Your task to perform on an android device: When is my next meeting? Image 0: 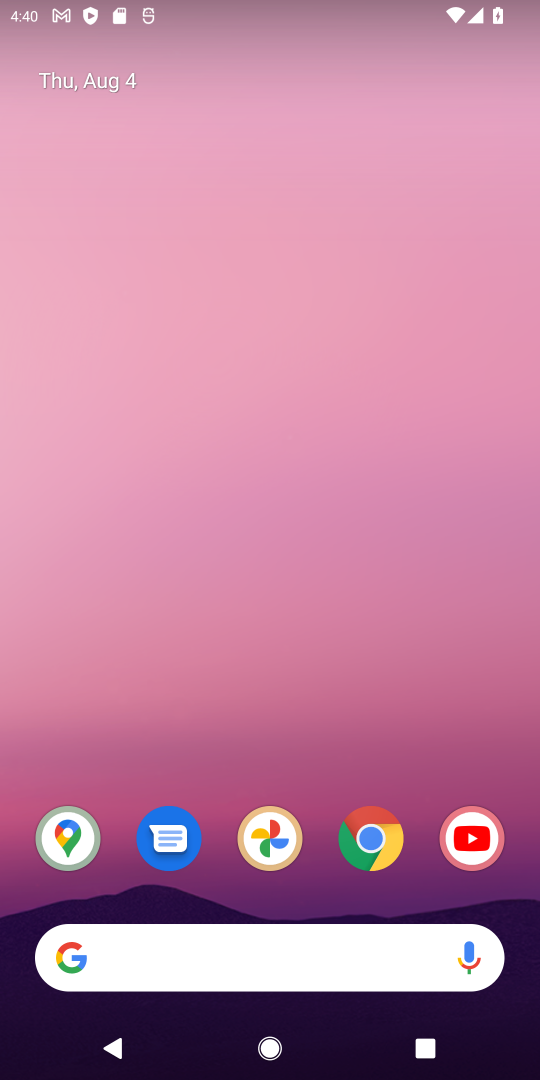
Step 0: drag from (286, 979) to (318, 194)
Your task to perform on an android device: When is my next meeting? Image 1: 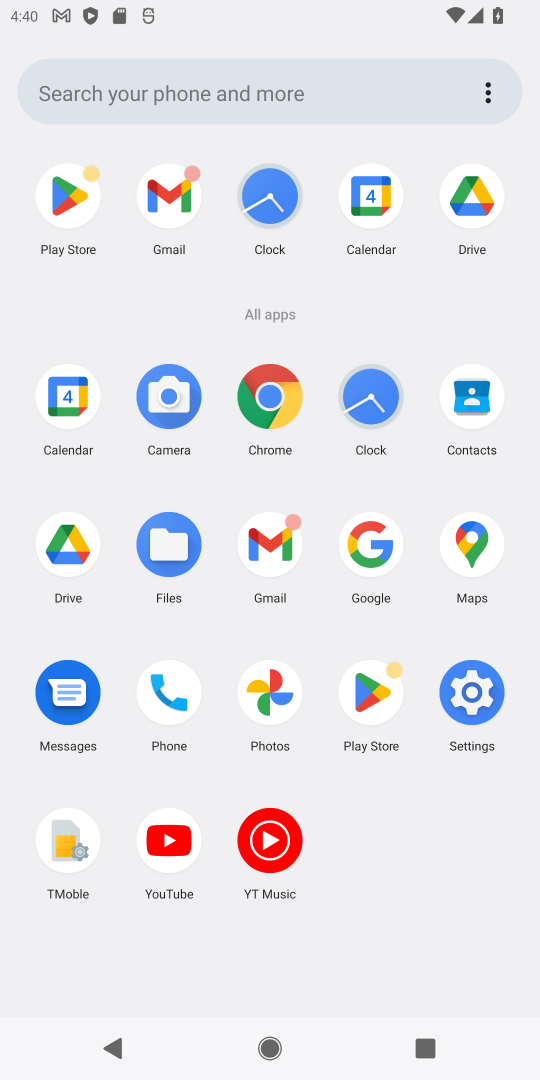
Step 1: click (62, 410)
Your task to perform on an android device: When is my next meeting? Image 2: 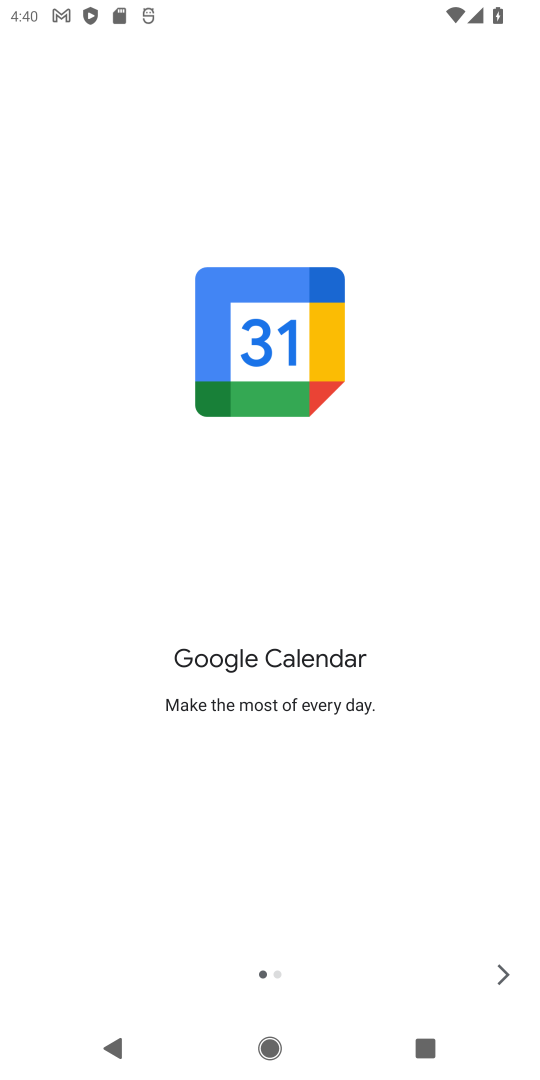
Step 2: click (491, 967)
Your task to perform on an android device: When is my next meeting? Image 3: 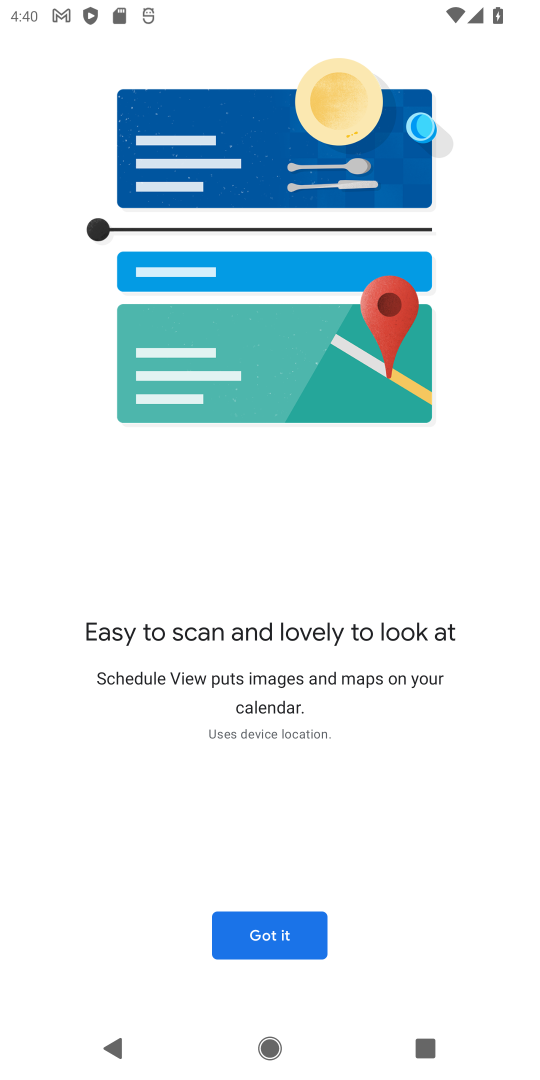
Step 3: click (245, 948)
Your task to perform on an android device: When is my next meeting? Image 4: 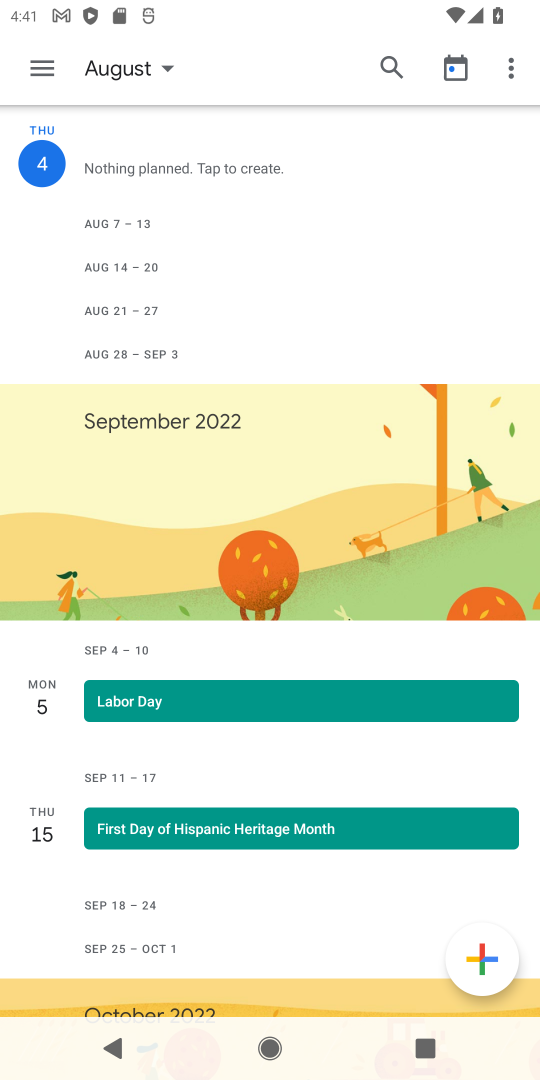
Step 4: click (148, 62)
Your task to perform on an android device: When is my next meeting? Image 5: 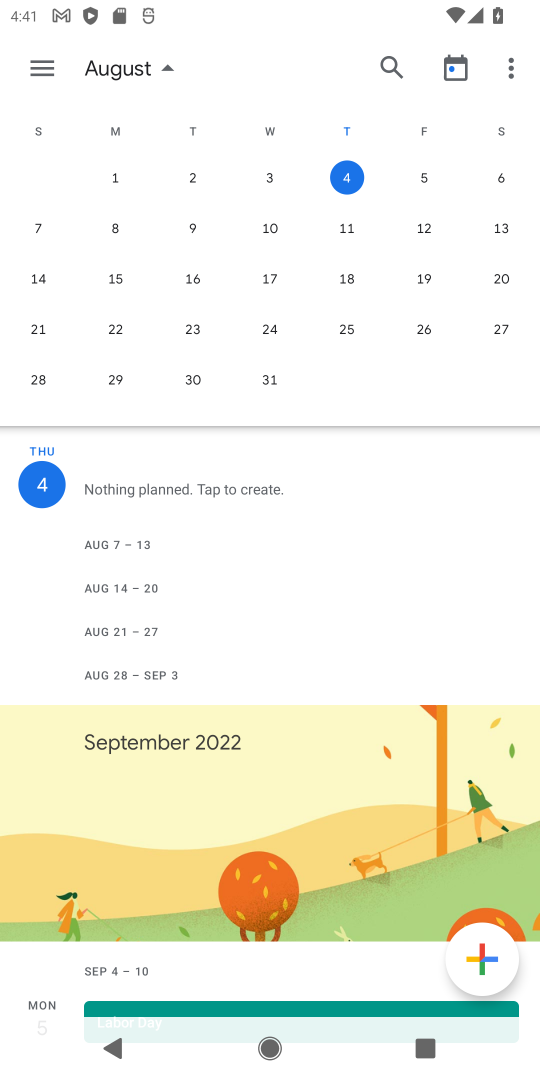
Step 5: task complete